Your task to perform on an android device: check the backup settings in the google photos Image 0: 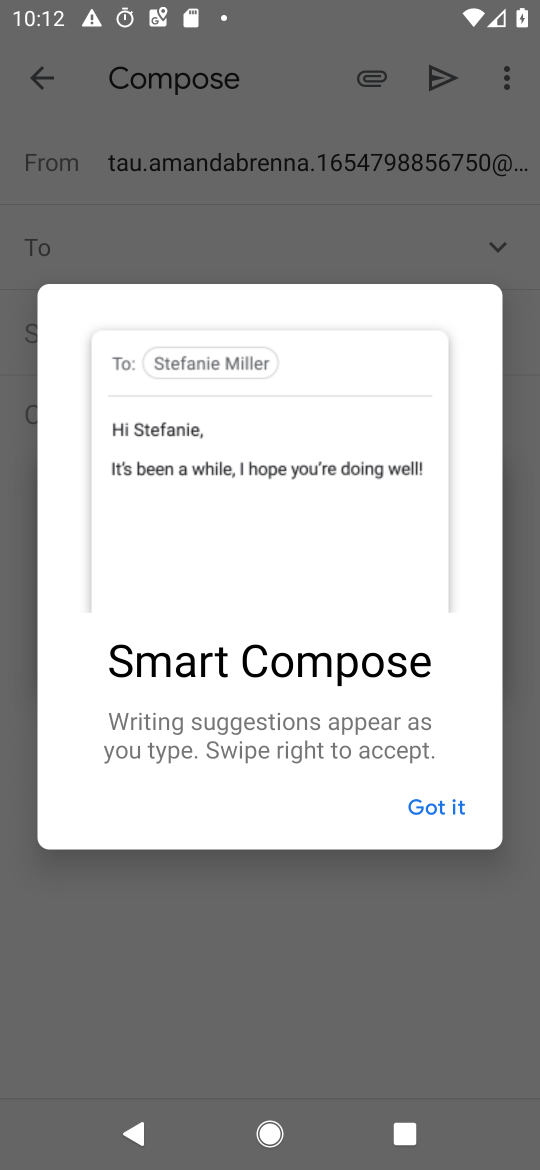
Step 0: press home button
Your task to perform on an android device: check the backup settings in the google photos Image 1: 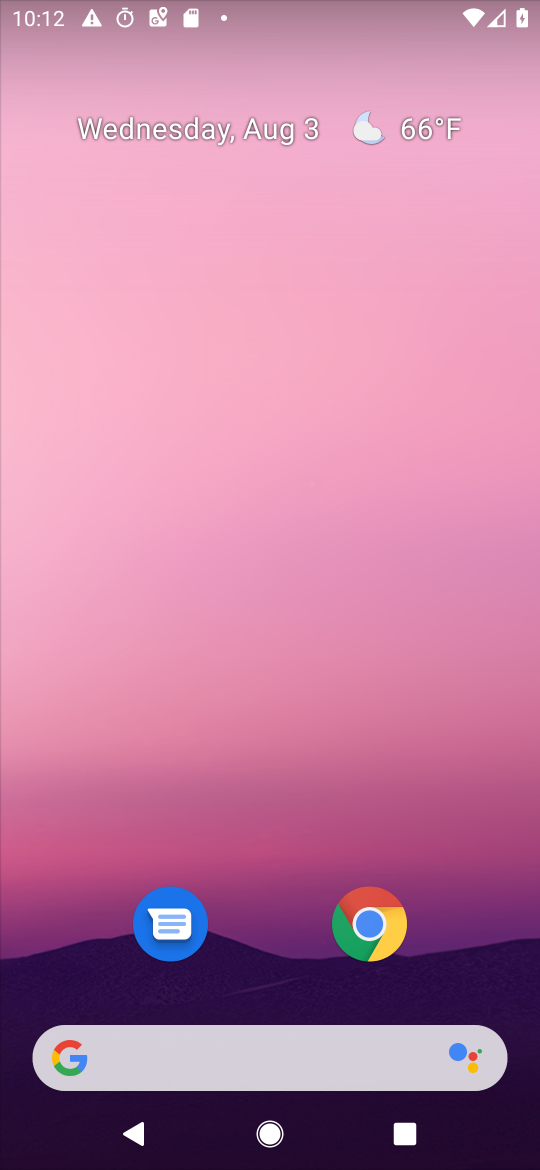
Step 1: drag from (266, 983) to (316, 95)
Your task to perform on an android device: check the backup settings in the google photos Image 2: 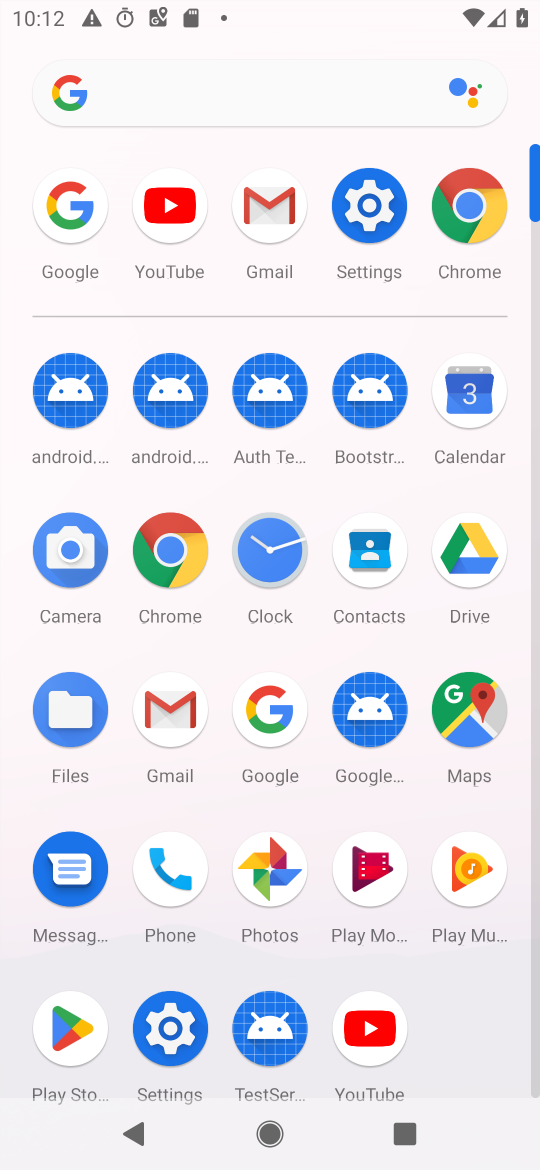
Step 2: click (271, 860)
Your task to perform on an android device: check the backup settings in the google photos Image 3: 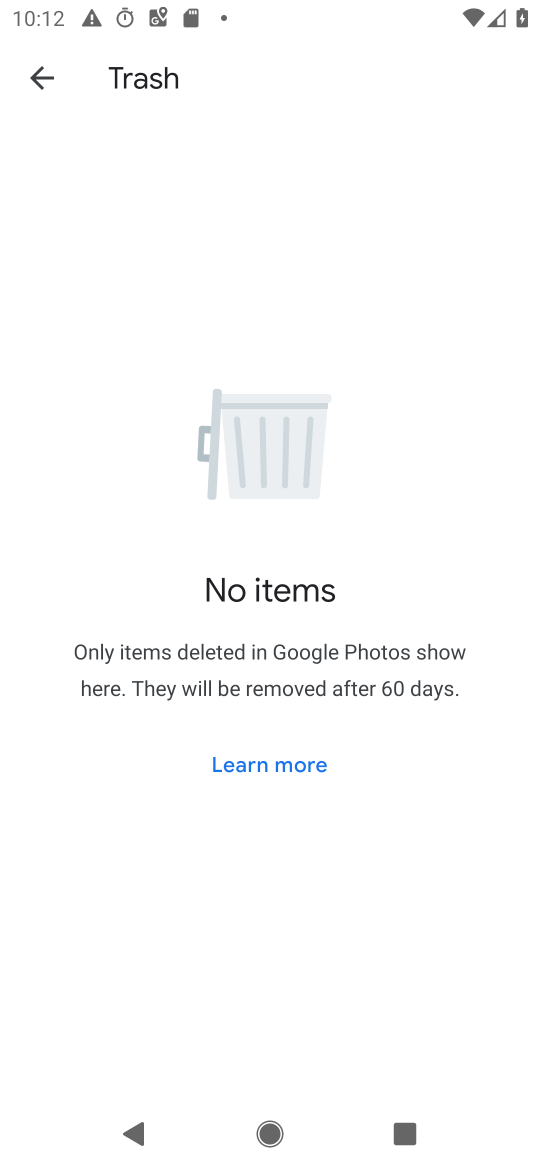
Step 3: click (51, 74)
Your task to perform on an android device: check the backup settings in the google photos Image 4: 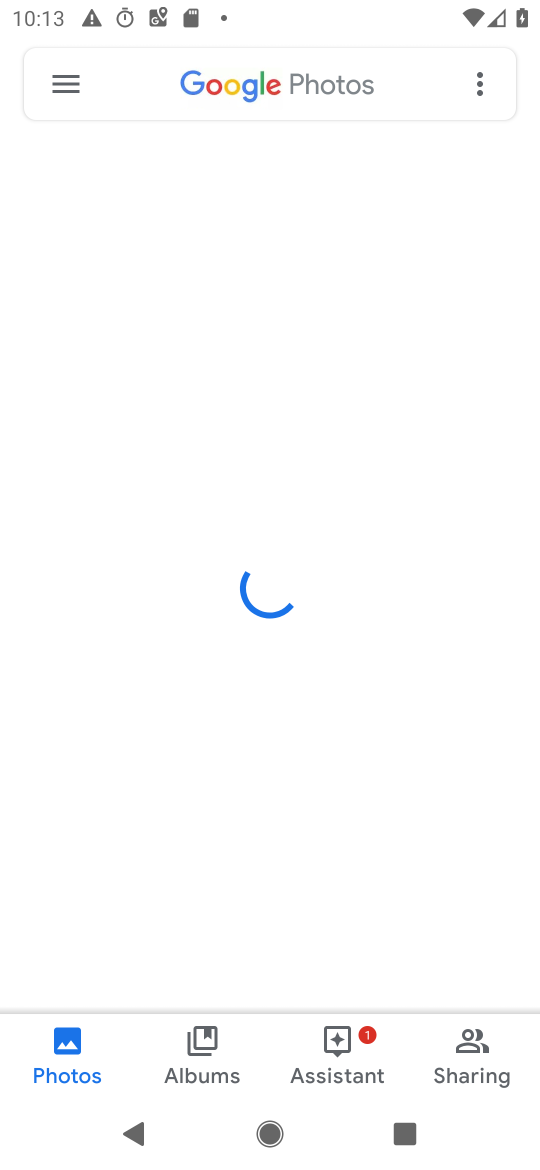
Step 4: click (62, 84)
Your task to perform on an android device: check the backup settings in the google photos Image 5: 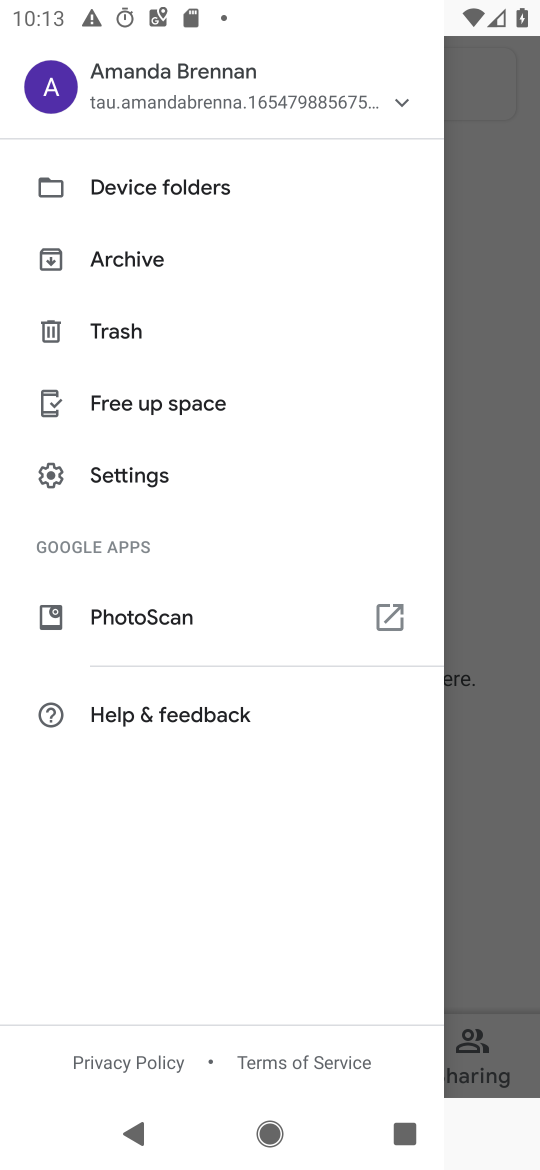
Step 5: click (177, 474)
Your task to perform on an android device: check the backup settings in the google photos Image 6: 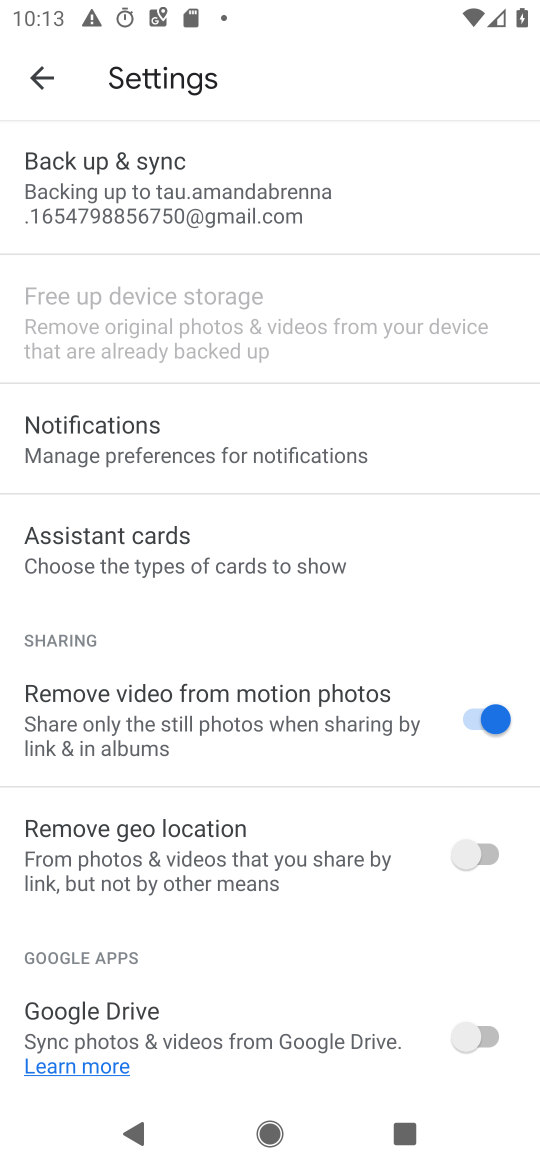
Step 6: click (208, 189)
Your task to perform on an android device: check the backup settings in the google photos Image 7: 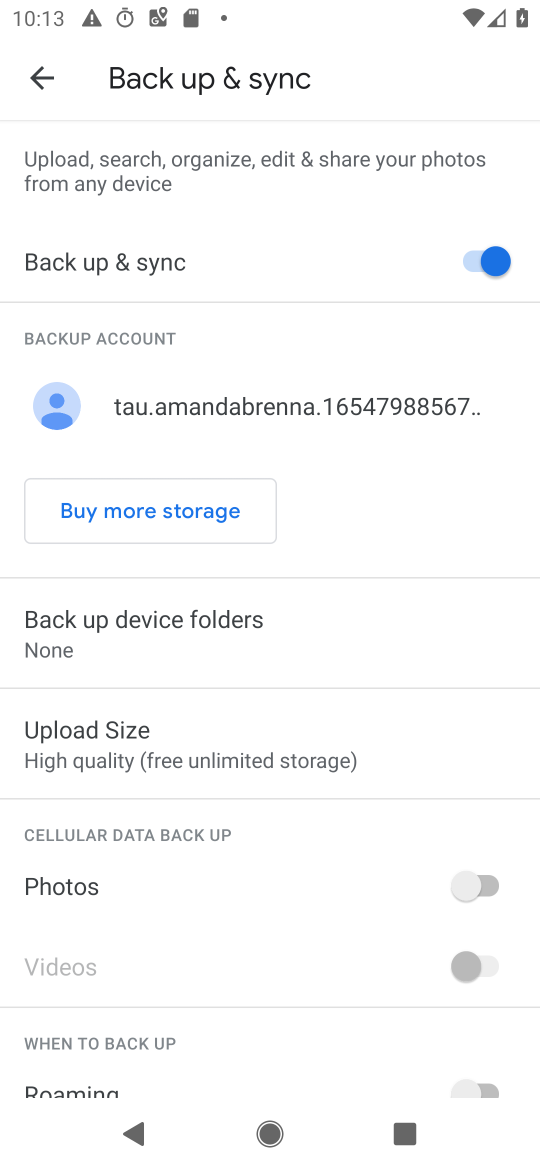
Step 7: task complete